Your task to perform on an android device: turn off priority inbox in the gmail app Image 0: 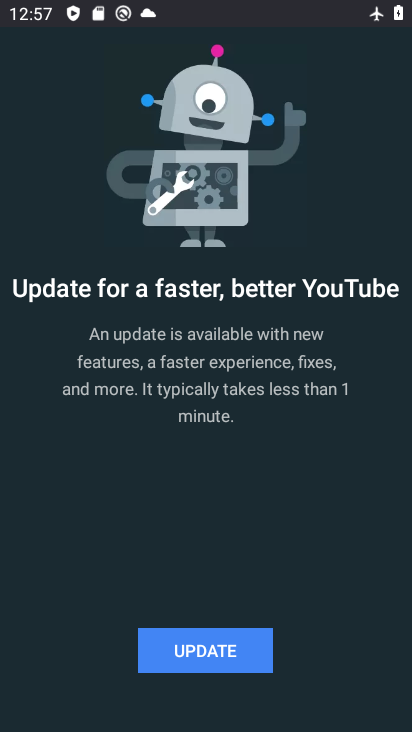
Step 0: press home button
Your task to perform on an android device: turn off priority inbox in the gmail app Image 1: 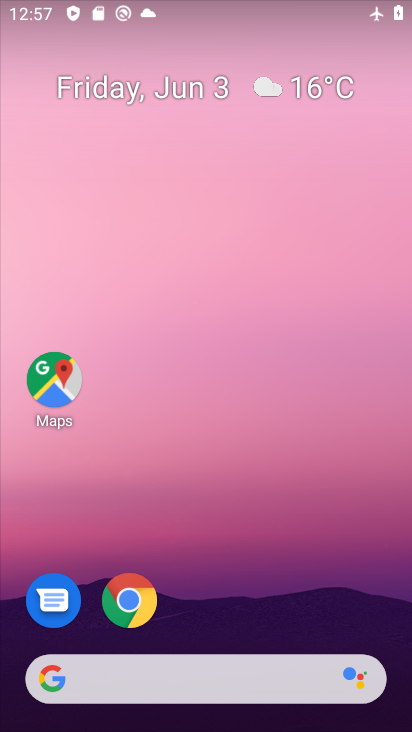
Step 1: drag from (211, 620) to (230, 3)
Your task to perform on an android device: turn off priority inbox in the gmail app Image 2: 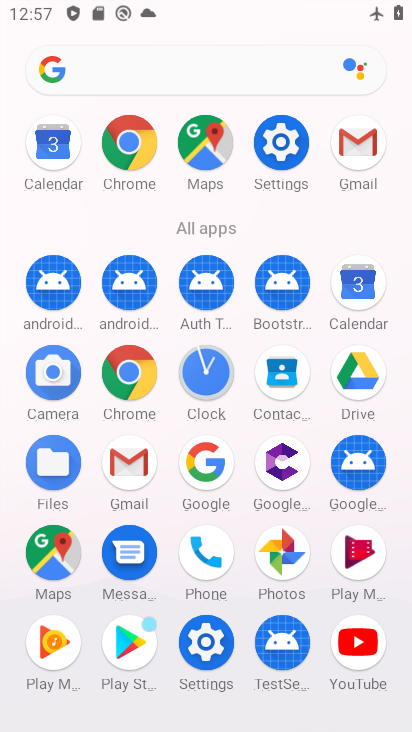
Step 2: click (345, 195)
Your task to perform on an android device: turn off priority inbox in the gmail app Image 3: 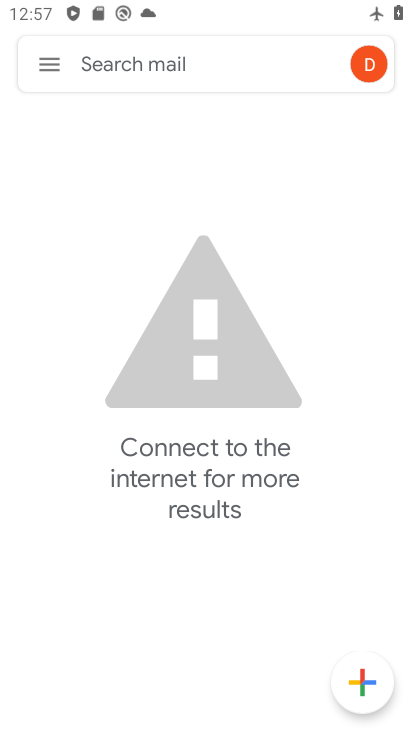
Step 3: click (50, 64)
Your task to perform on an android device: turn off priority inbox in the gmail app Image 4: 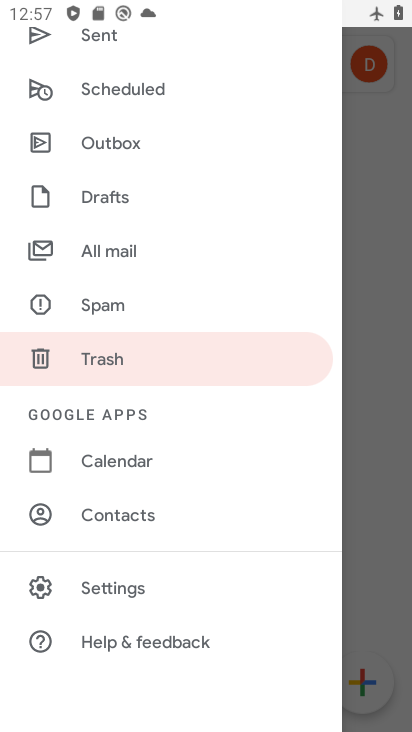
Step 4: click (110, 580)
Your task to perform on an android device: turn off priority inbox in the gmail app Image 5: 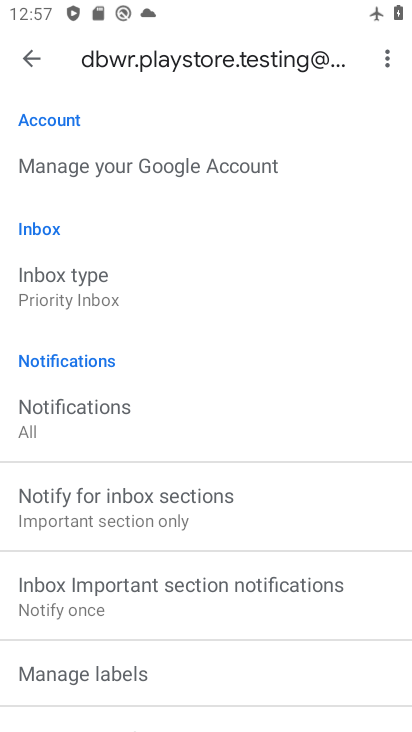
Step 5: click (64, 277)
Your task to perform on an android device: turn off priority inbox in the gmail app Image 6: 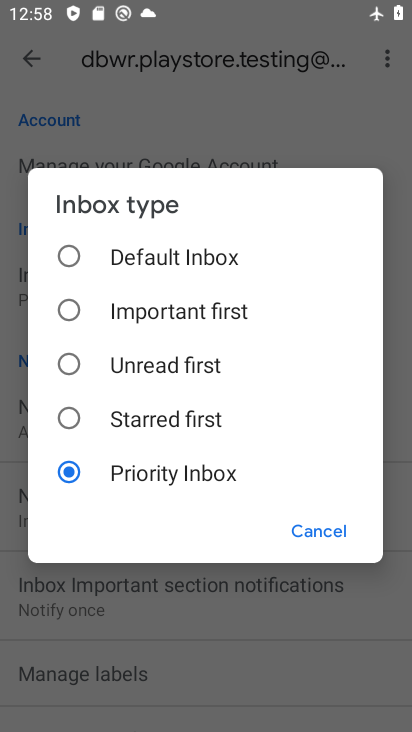
Step 6: click (74, 259)
Your task to perform on an android device: turn off priority inbox in the gmail app Image 7: 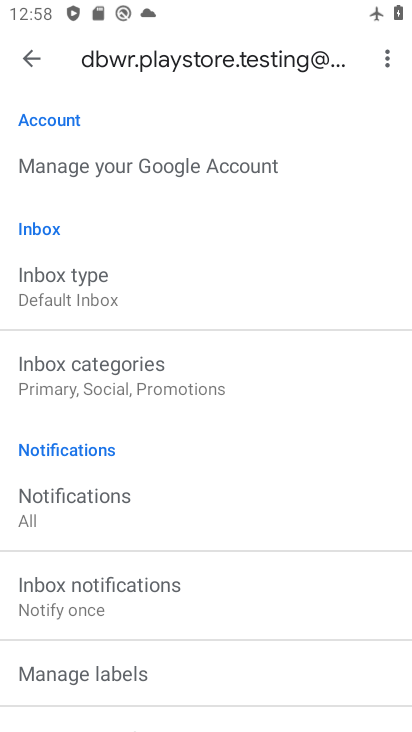
Step 7: task complete